Your task to perform on an android device: open wifi settings Image 0: 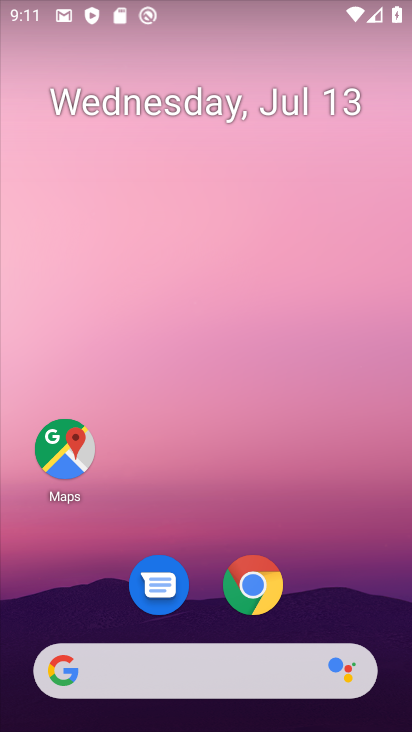
Step 0: drag from (265, 513) to (239, 13)
Your task to perform on an android device: open wifi settings Image 1: 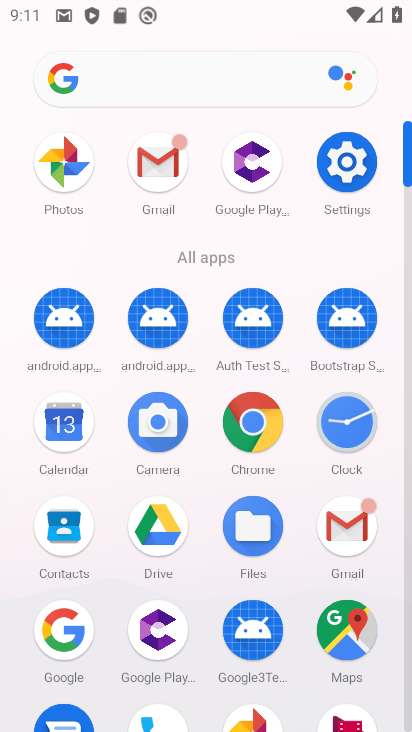
Step 1: click (351, 154)
Your task to perform on an android device: open wifi settings Image 2: 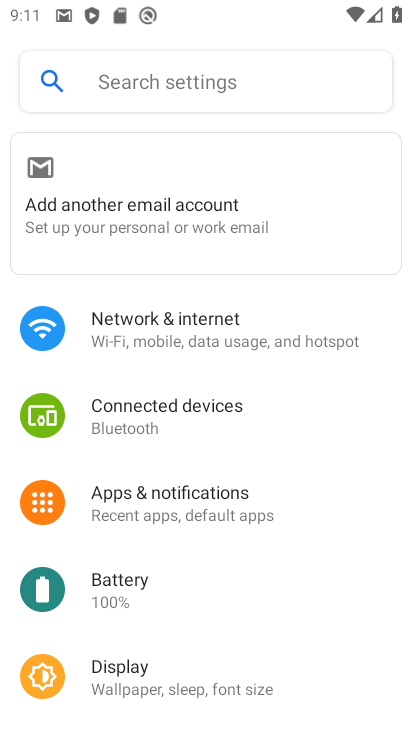
Step 2: click (201, 327)
Your task to perform on an android device: open wifi settings Image 3: 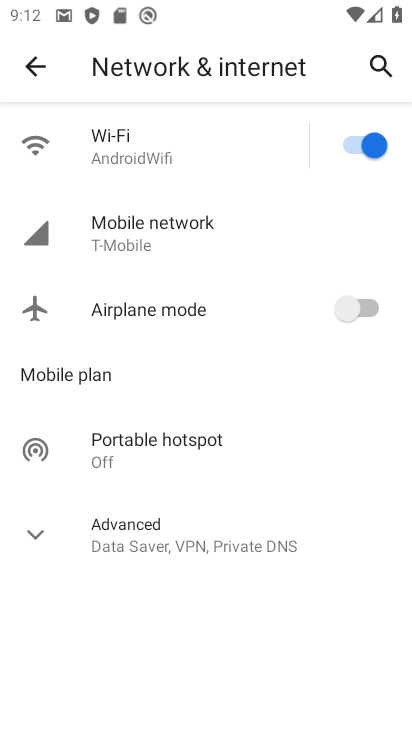
Step 3: click (113, 145)
Your task to perform on an android device: open wifi settings Image 4: 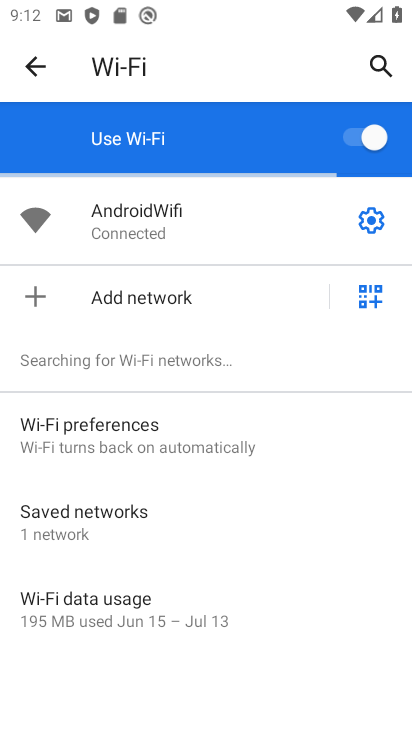
Step 4: task complete